Your task to perform on an android device: toggle notification dots Image 0: 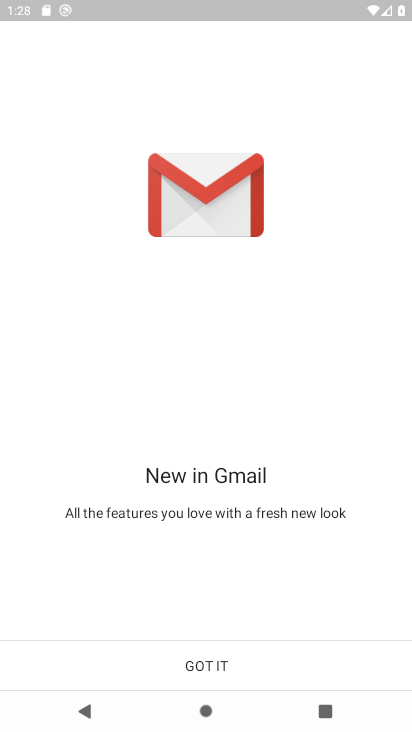
Step 0: click (191, 656)
Your task to perform on an android device: toggle notification dots Image 1: 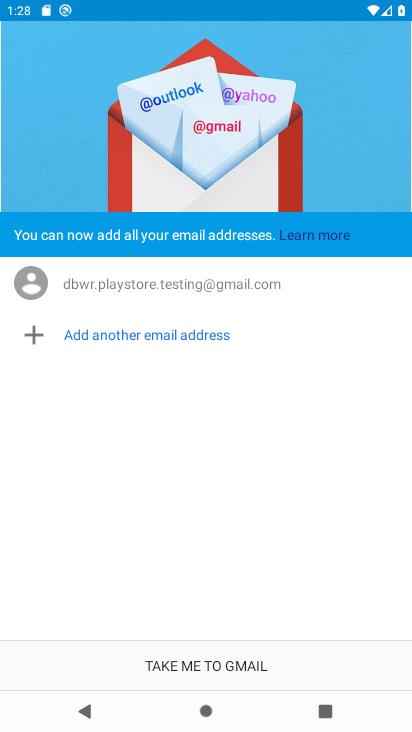
Step 1: click (196, 665)
Your task to perform on an android device: toggle notification dots Image 2: 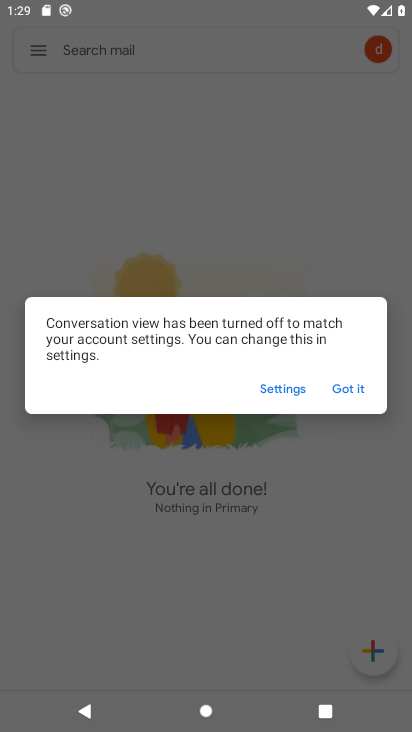
Step 2: click (352, 392)
Your task to perform on an android device: toggle notification dots Image 3: 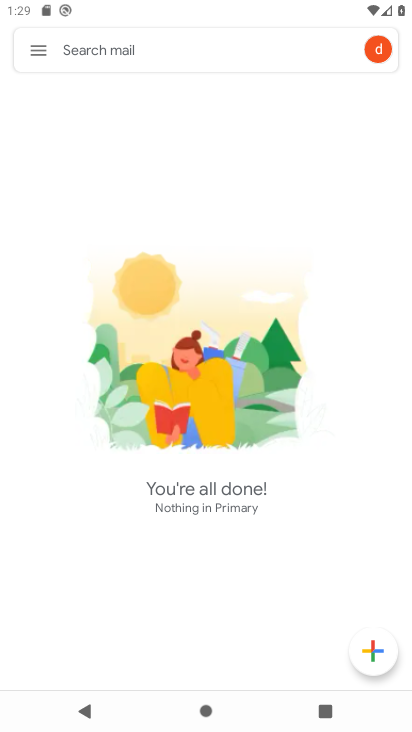
Step 3: press home button
Your task to perform on an android device: toggle notification dots Image 4: 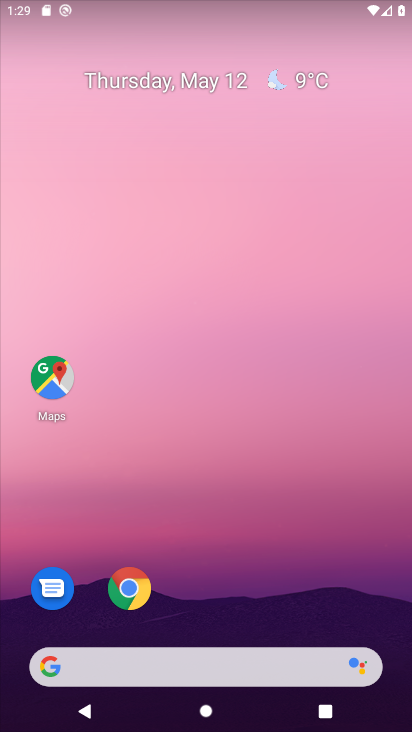
Step 4: drag from (264, 551) to (278, 20)
Your task to perform on an android device: toggle notification dots Image 5: 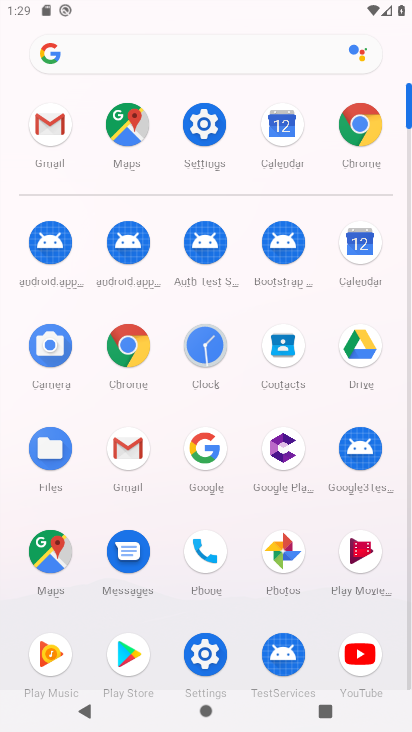
Step 5: click (210, 114)
Your task to perform on an android device: toggle notification dots Image 6: 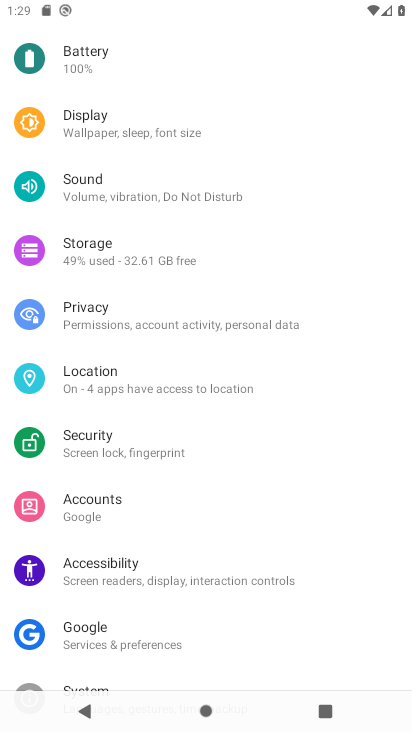
Step 6: drag from (141, 165) to (161, 577)
Your task to perform on an android device: toggle notification dots Image 7: 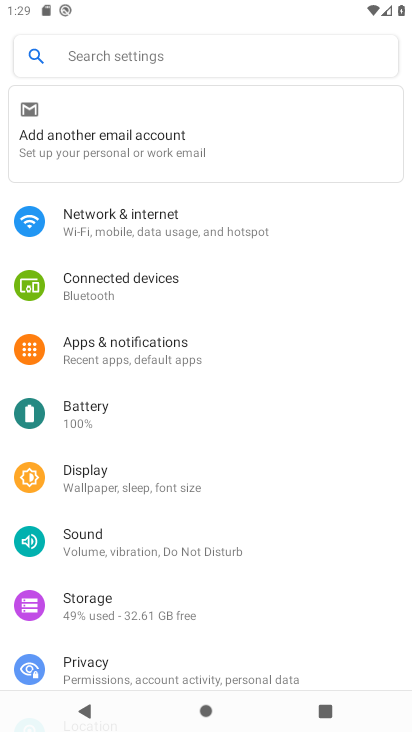
Step 7: click (123, 348)
Your task to perform on an android device: toggle notification dots Image 8: 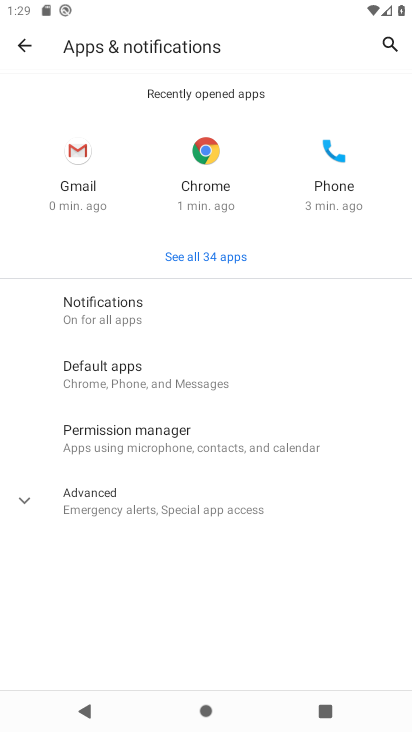
Step 8: click (99, 298)
Your task to perform on an android device: toggle notification dots Image 9: 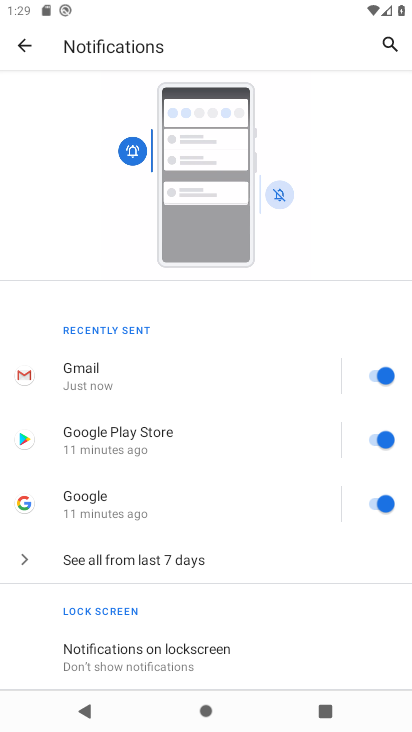
Step 9: drag from (135, 655) to (174, 335)
Your task to perform on an android device: toggle notification dots Image 10: 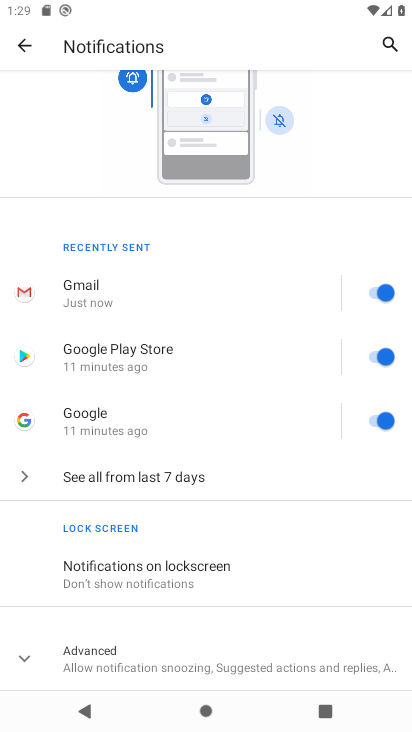
Step 10: click (170, 662)
Your task to perform on an android device: toggle notification dots Image 11: 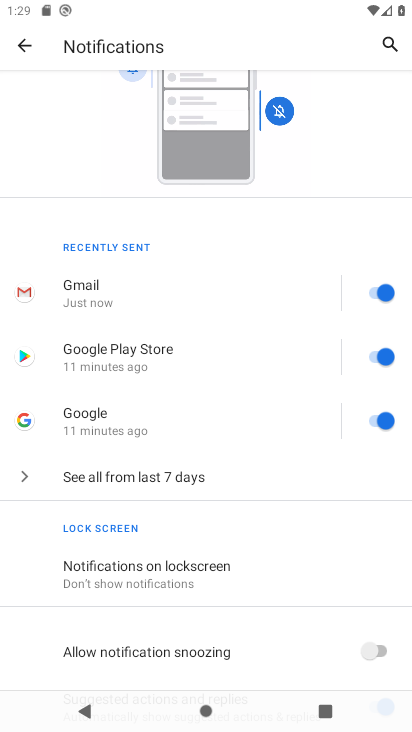
Step 11: drag from (170, 632) to (162, 320)
Your task to perform on an android device: toggle notification dots Image 12: 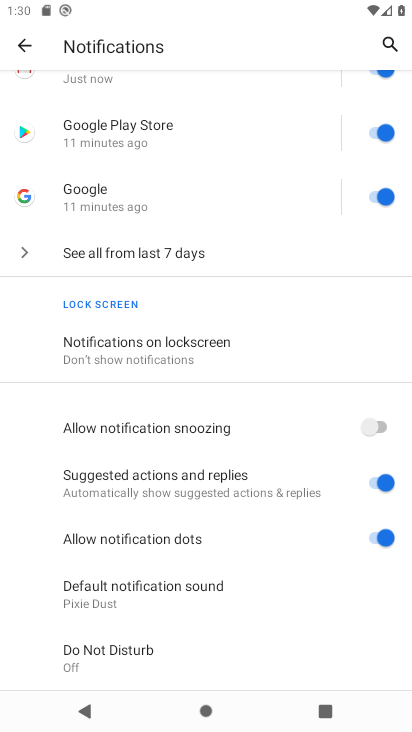
Step 12: click (375, 538)
Your task to perform on an android device: toggle notification dots Image 13: 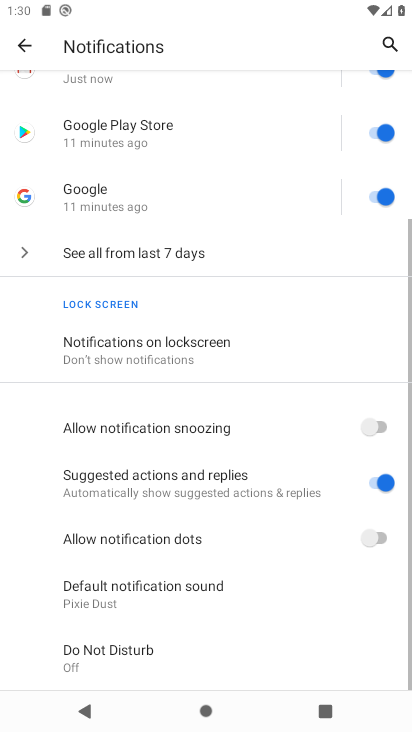
Step 13: task complete